Your task to perform on an android device: Go to Google Image 0: 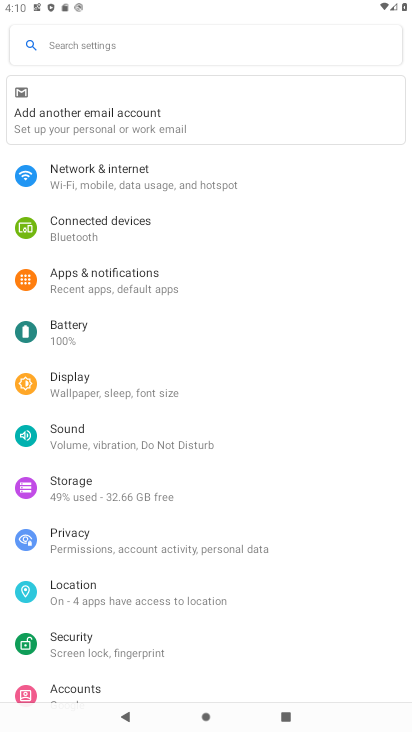
Step 0: press home button
Your task to perform on an android device: Go to Google Image 1: 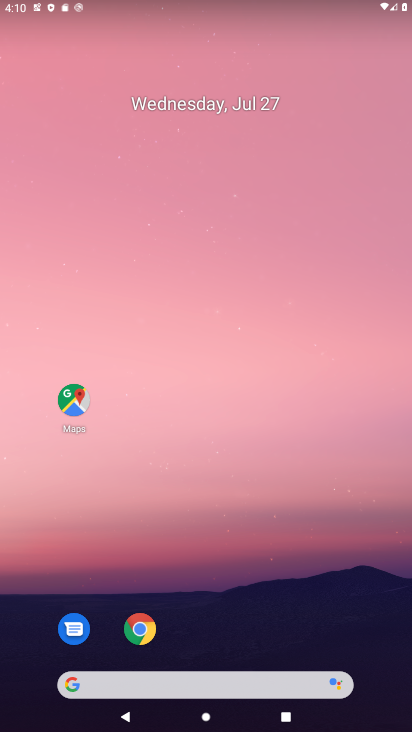
Step 1: click (189, 680)
Your task to perform on an android device: Go to Google Image 2: 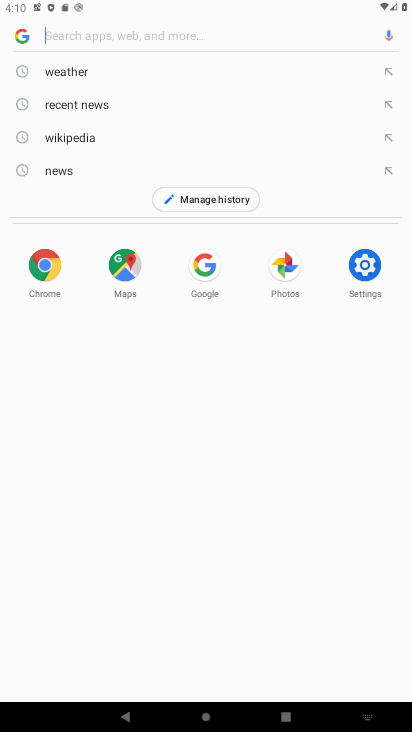
Step 2: task complete